Your task to perform on an android device: Open my contact list Image 0: 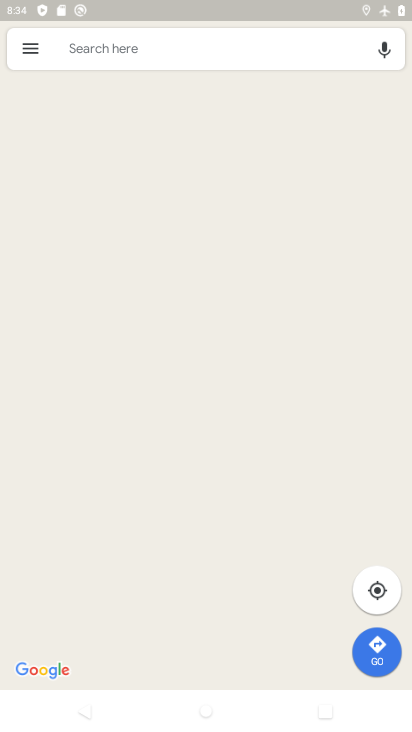
Step 0: press home button
Your task to perform on an android device: Open my contact list Image 1: 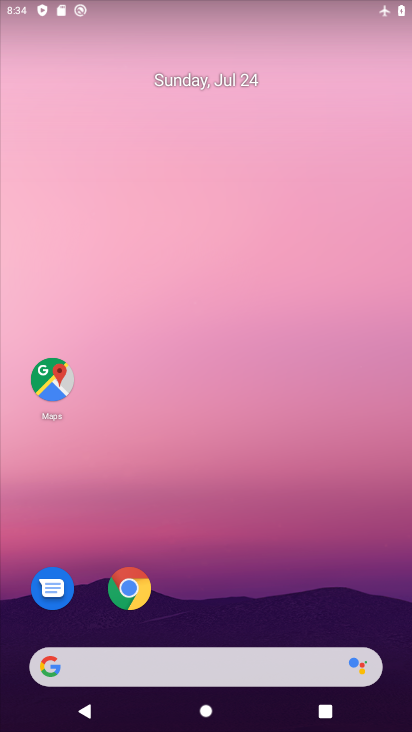
Step 1: drag from (160, 591) to (143, 316)
Your task to perform on an android device: Open my contact list Image 2: 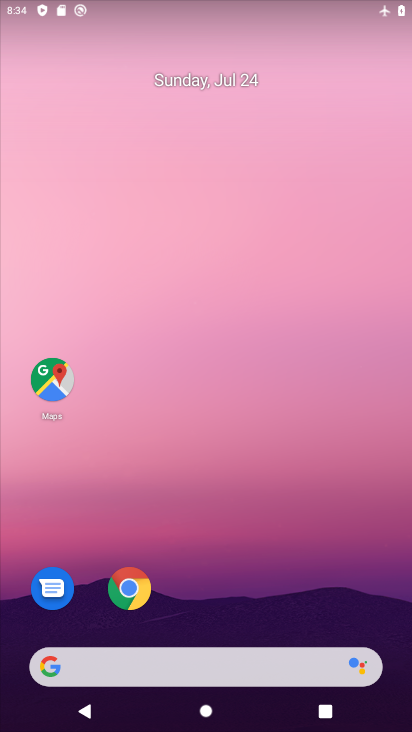
Step 2: drag from (244, 576) to (180, 228)
Your task to perform on an android device: Open my contact list Image 3: 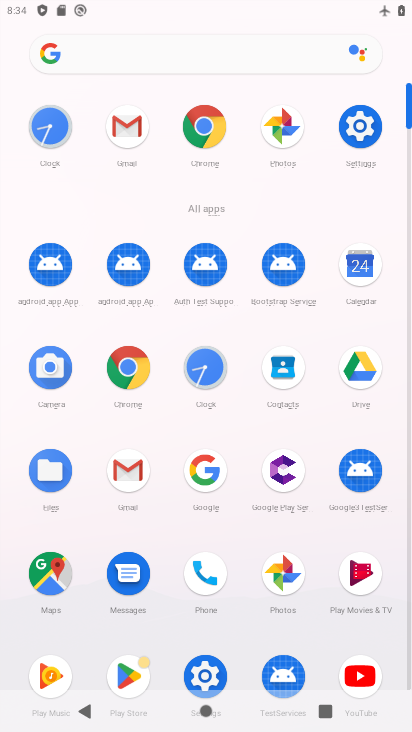
Step 3: click (283, 368)
Your task to perform on an android device: Open my contact list Image 4: 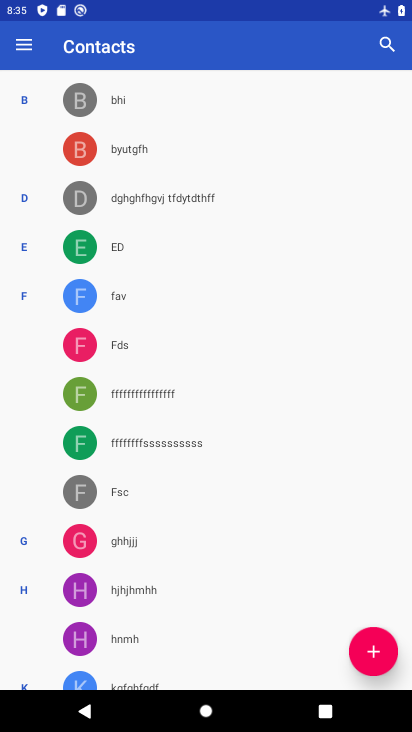
Step 4: task complete